Your task to perform on an android device: empty trash in google photos Image 0: 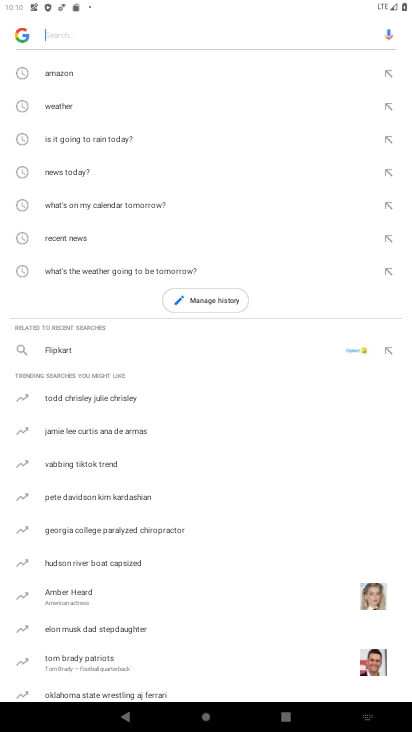
Step 0: press home button
Your task to perform on an android device: empty trash in google photos Image 1: 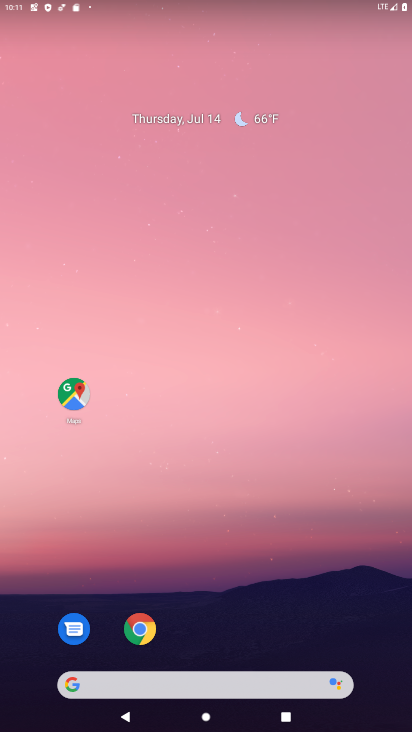
Step 1: drag from (220, 622) to (252, 198)
Your task to perform on an android device: empty trash in google photos Image 2: 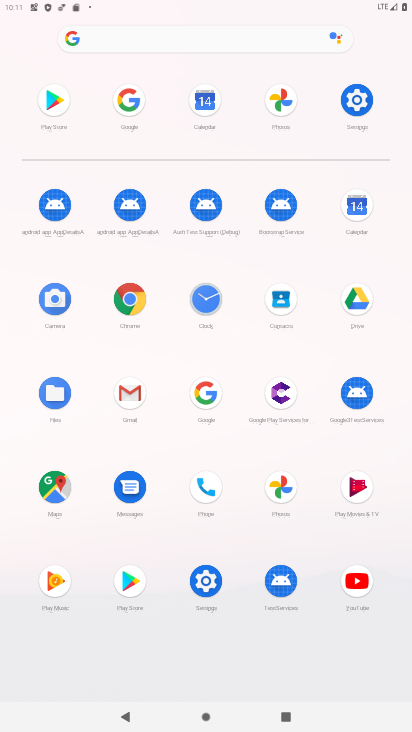
Step 2: click (287, 493)
Your task to perform on an android device: empty trash in google photos Image 3: 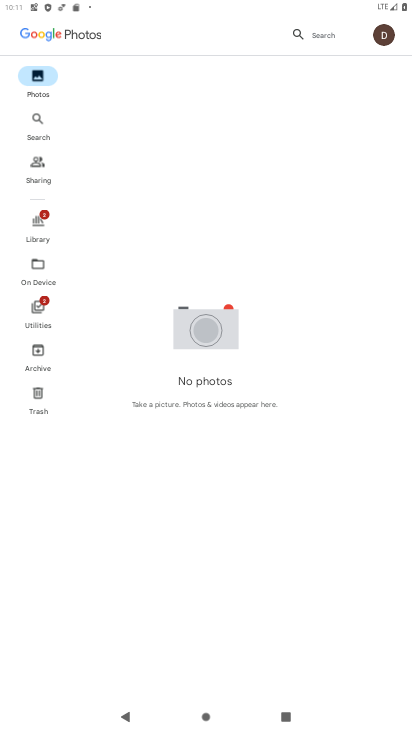
Step 3: click (40, 385)
Your task to perform on an android device: empty trash in google photos Image 4: 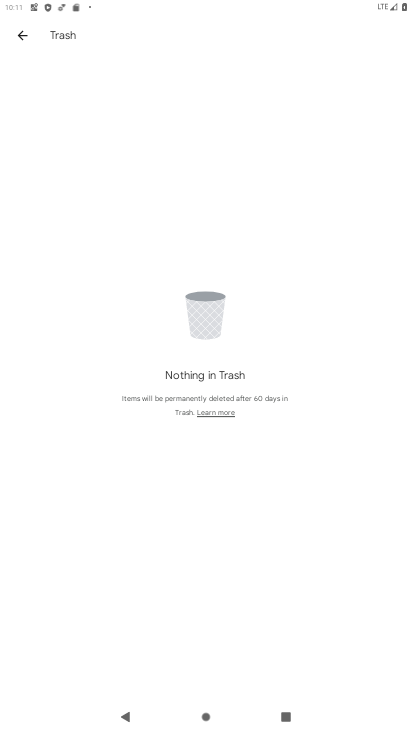
Step 4: task complete